Your task to perform on an android device: show emergency info Image 0: 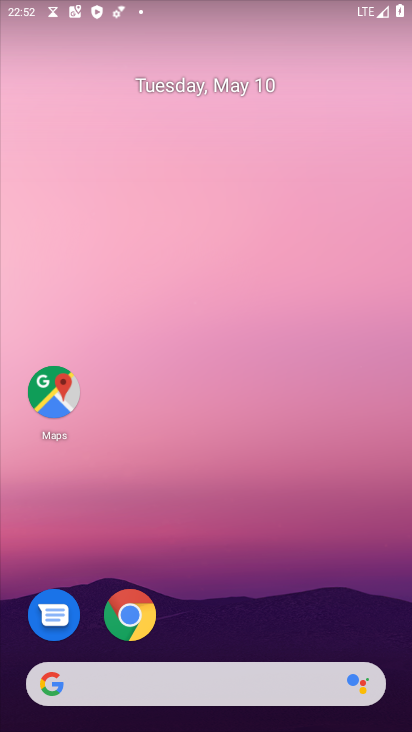
Step 0: drag from (264, 591) to (252, 125)
Your task to perform on an android device: show emergency info Image 1: 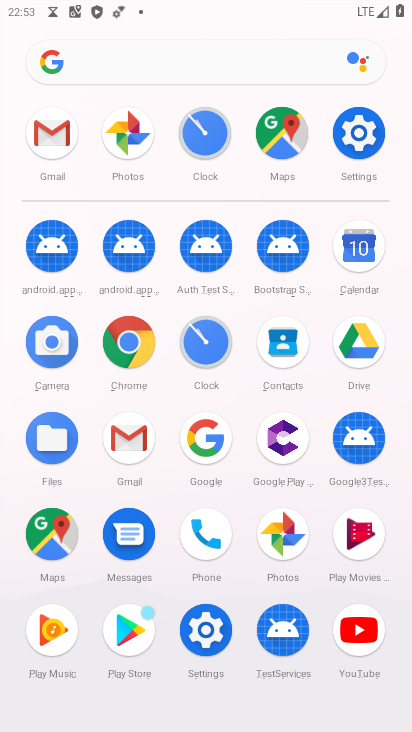
Step 1: click (354, 136)
Your task to perform on an android device: show emergency info Image 2: 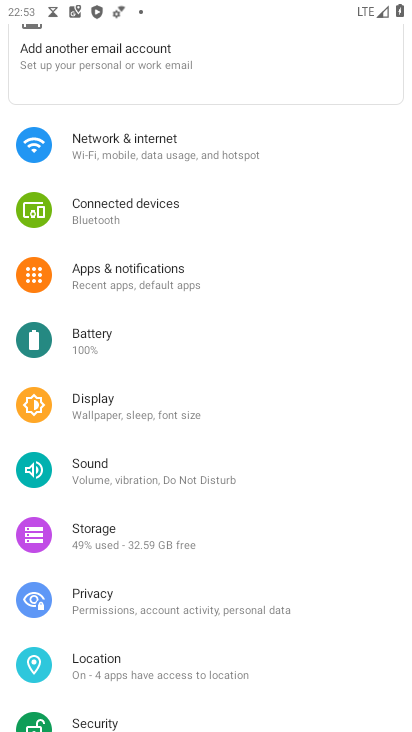
Step 2: drag from (152, 446) to (198, 337)
Your task to perform on an android device: show emergency info Image 3: 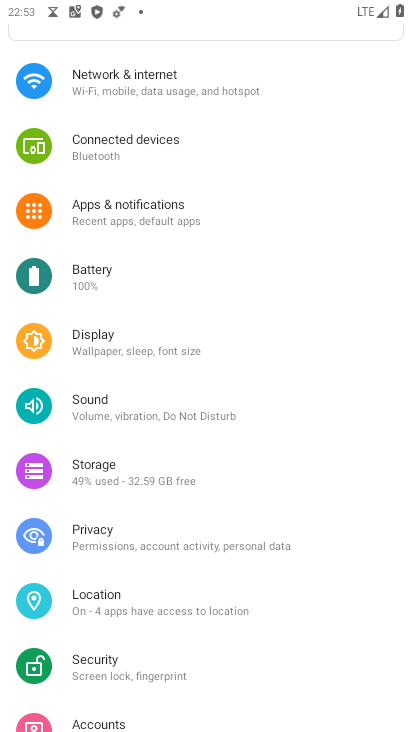
Step 3: drag from (119, 560) to (196, 425)
Your task to perform on an android device: show emergency info Image 4: 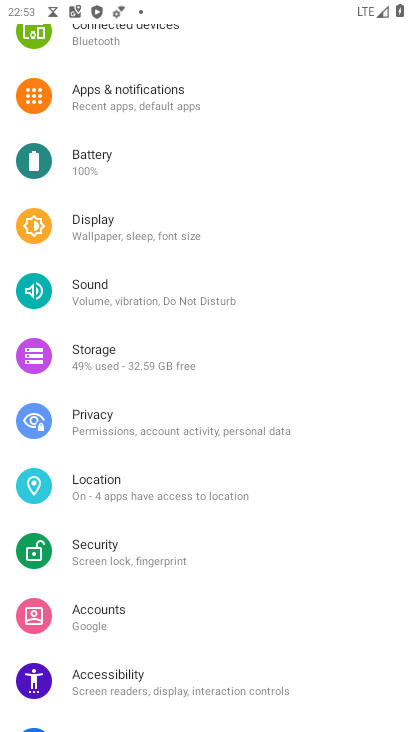
Step 4: drag from (156, 575) to (197, 433)
Your task to perform on an android device: show emergency info Image 5: 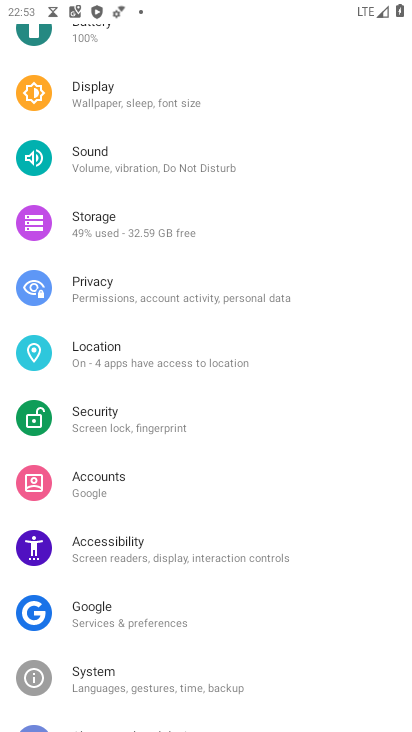
Step 5: drag from (137, 582) to (235, 443)
Your task to perform on an android device: show emergency info Image 6: 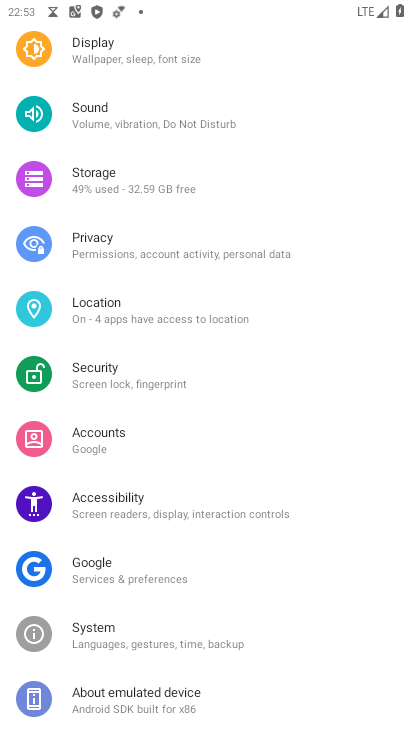
Step 6: click (131, 686)
Your task to perform on an android device: show emergency info Image 7: 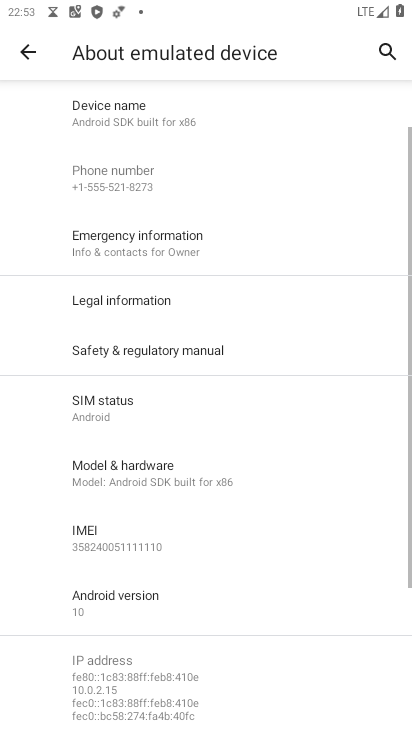
Step 7: click (161, 252)
Your task to perform on an android device: show emergency info Image 8: 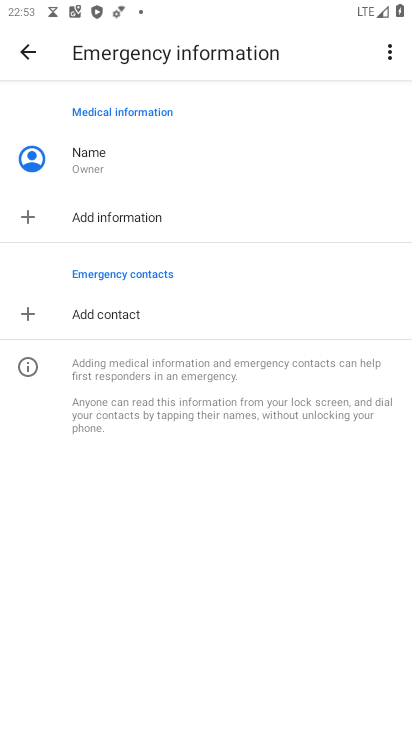
Step 8: task complete